Your task to perform on an android device: Empty the shopping cart on target. Image 0: 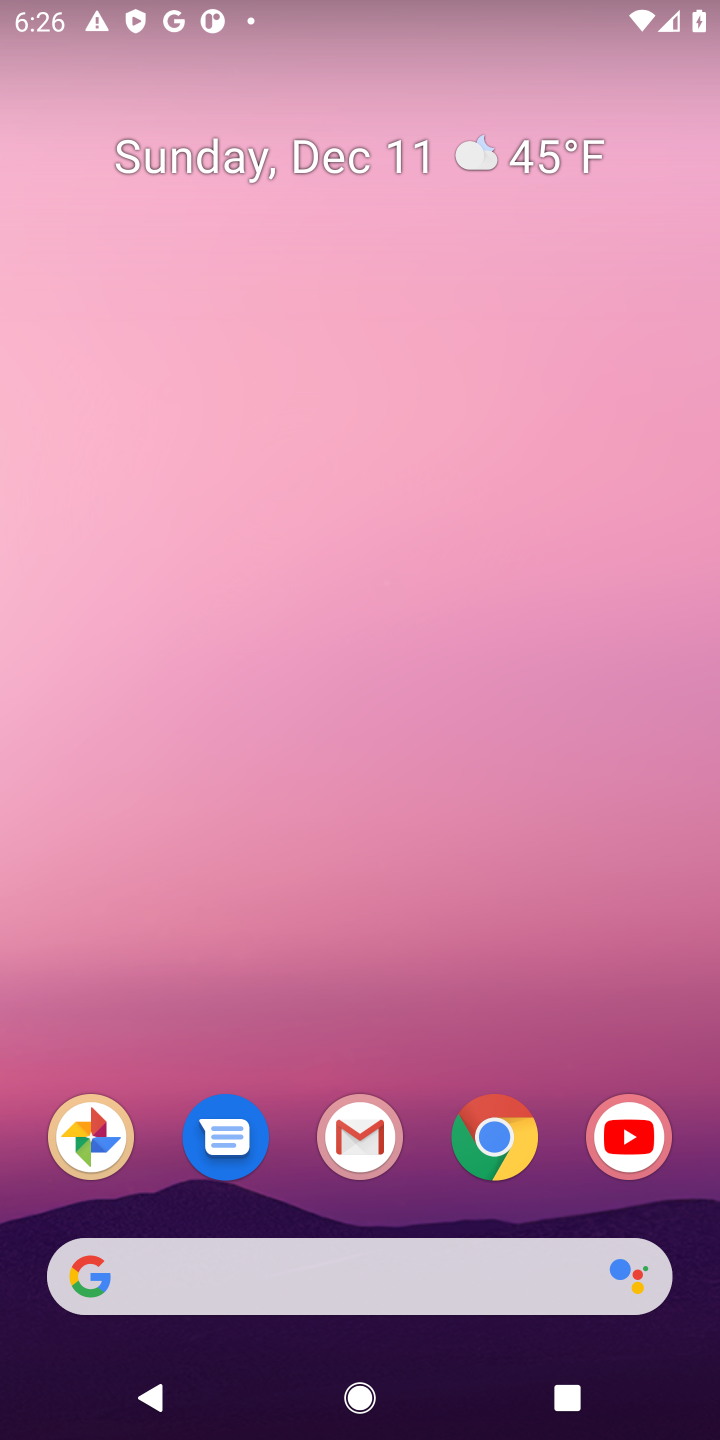
Step 0: click (479, 1117)
Your task to perform on an android device: Empty the shopping cart on target. Image 1: 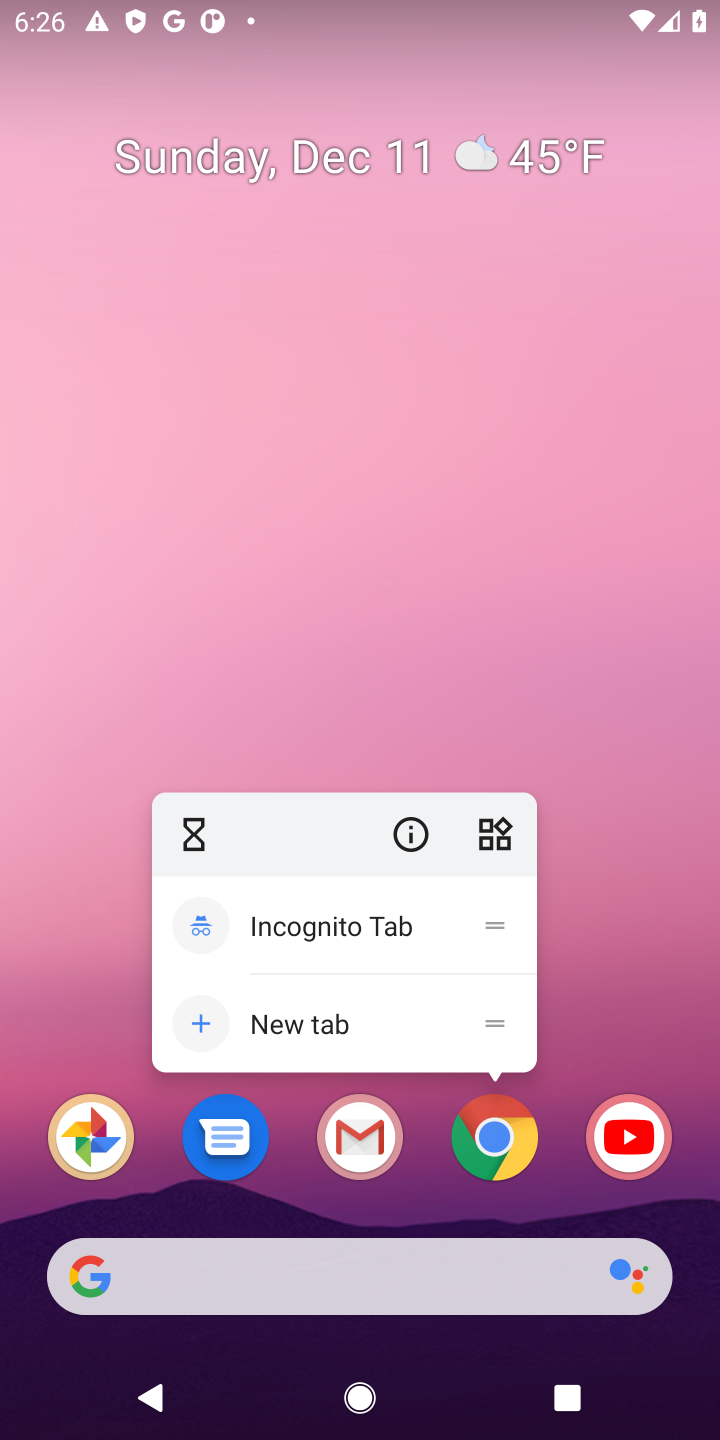
Step 1: click (490, 1145)
Your task to perform on an android device: Empty the shopping cart on target. Image 2: 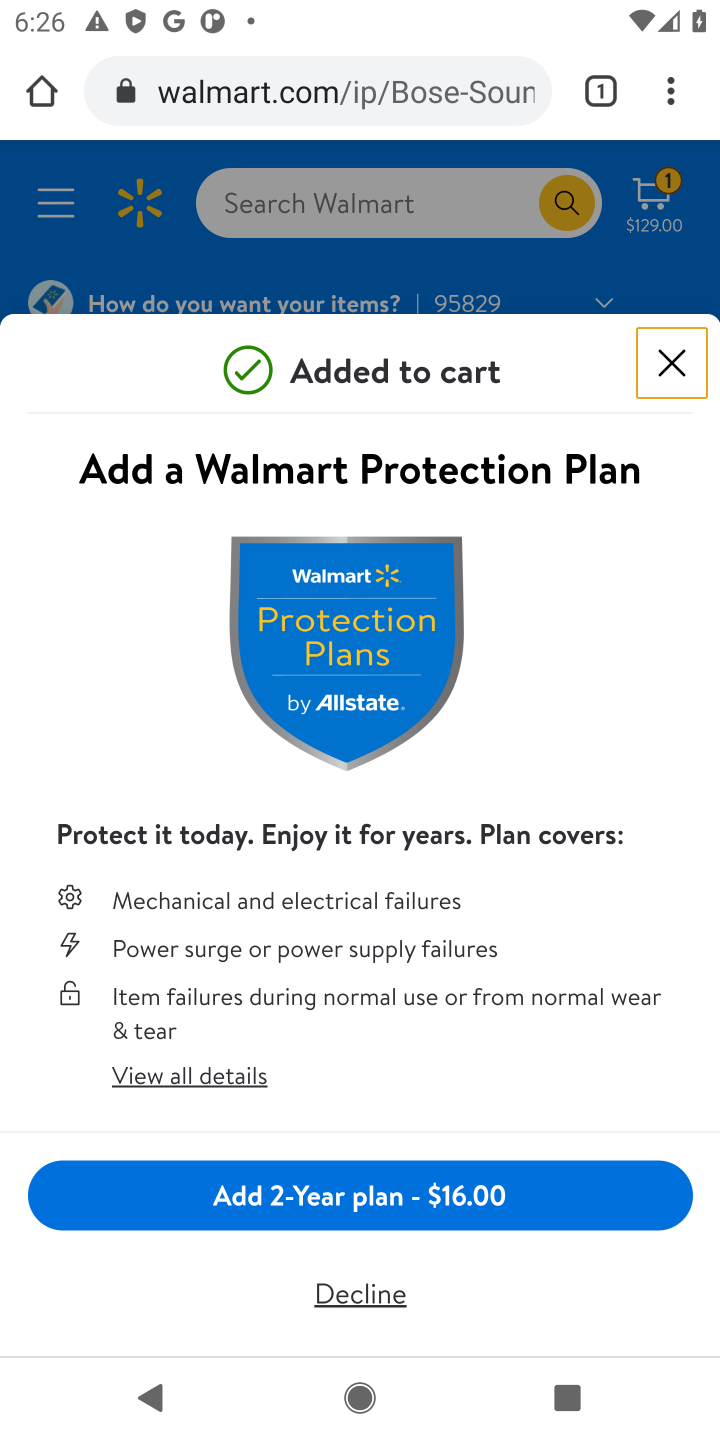
Step 2: click (229, 79)
Your task to perform on an android device: Empty the shopping cart on target. Image 3: 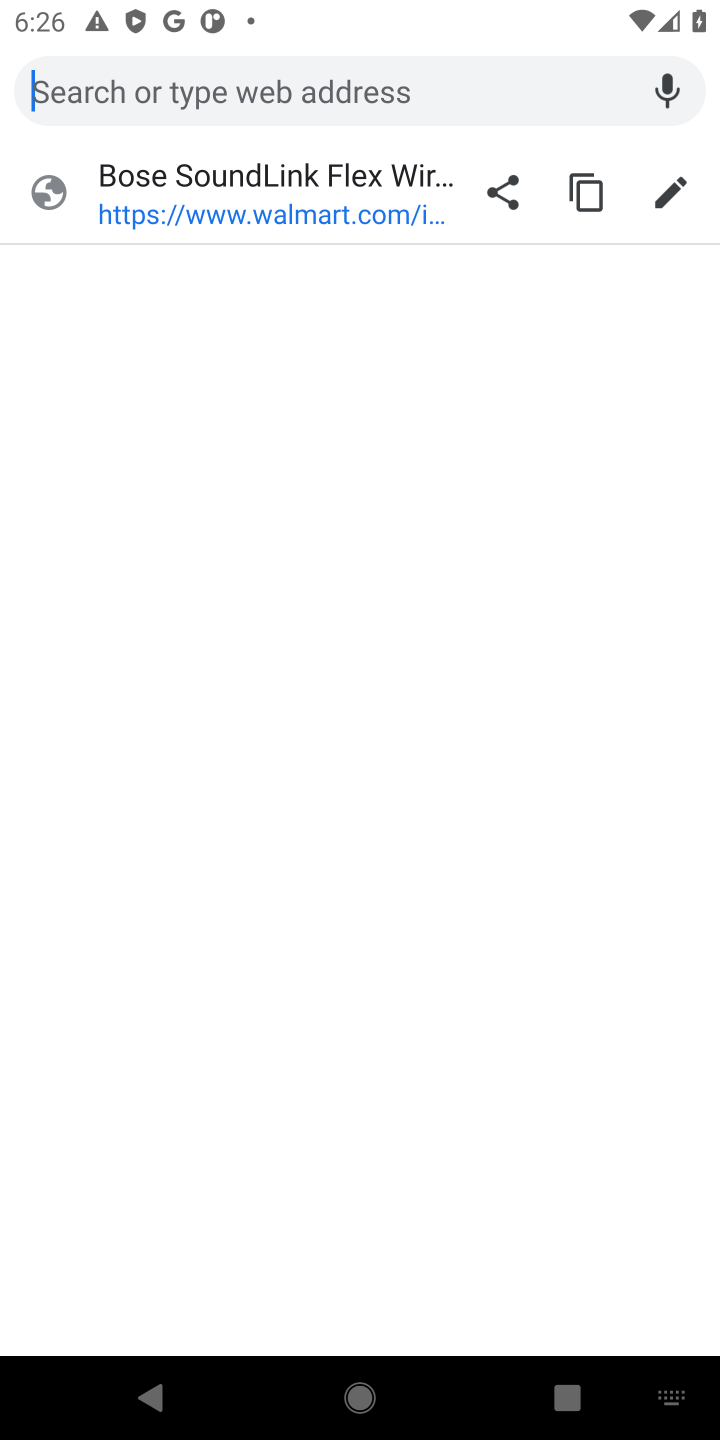
Step 3: type "target"
Your task to perform on an android device: Empty the shopping cart on target. Image 4: 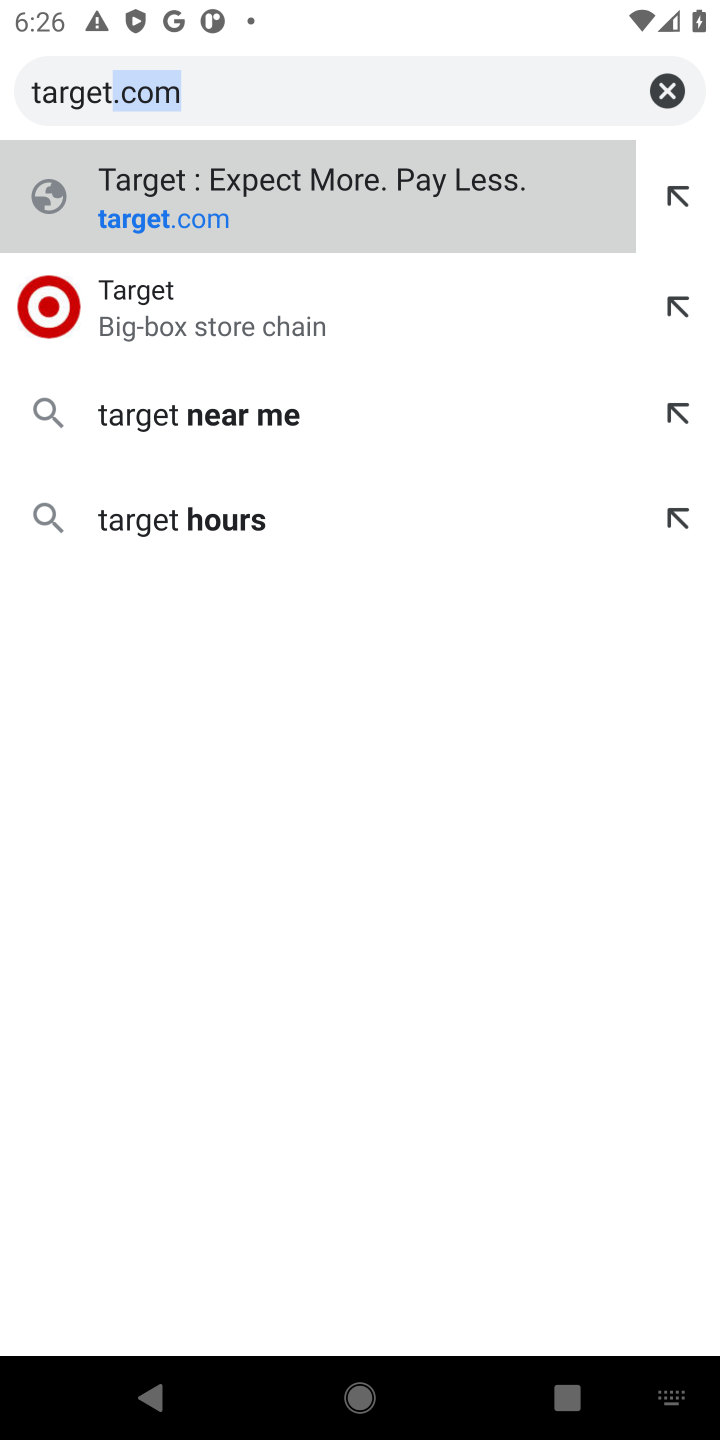
Step 4: click (153, 206)
Your task to perform on an android device: Empty the shopping cart on target. Image 5: 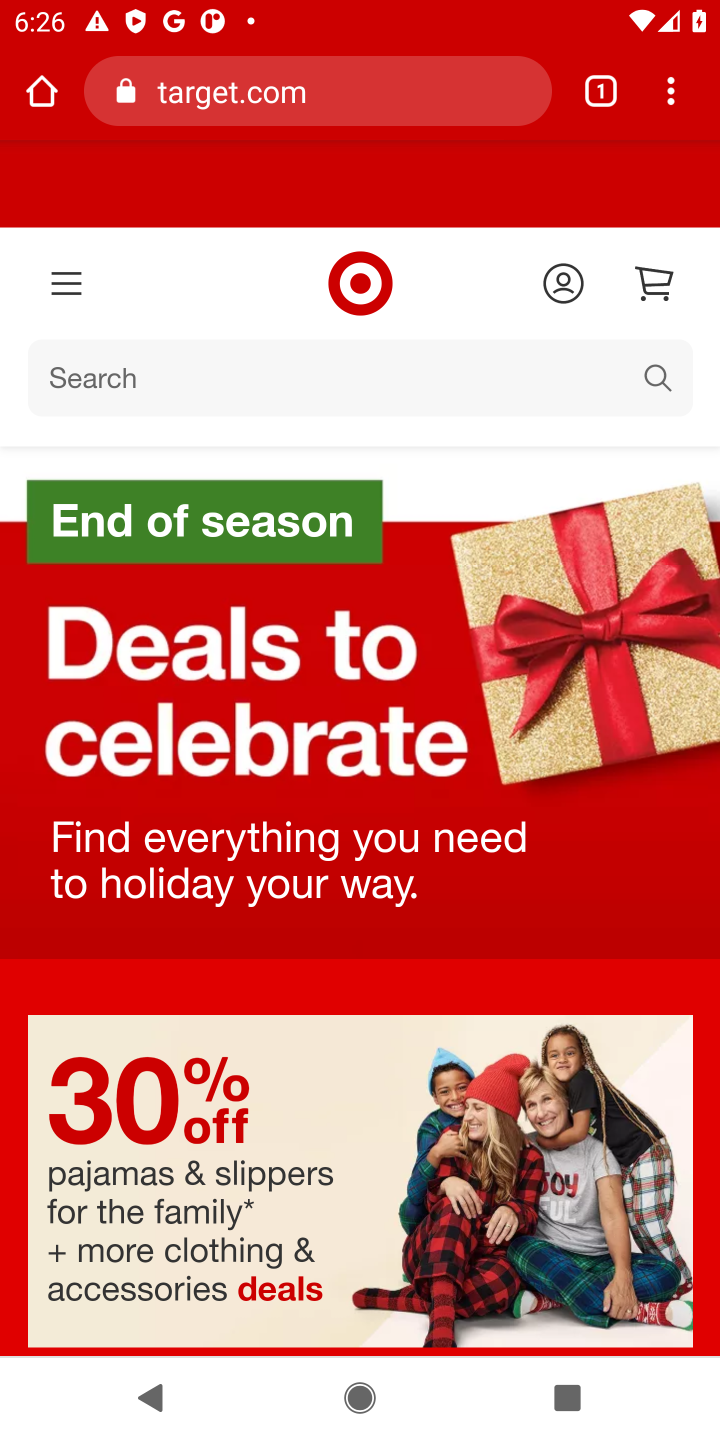
Step 5: click (661, 272)
Your task to perform on an android device: Empty the shopping cart on target. Image 6: 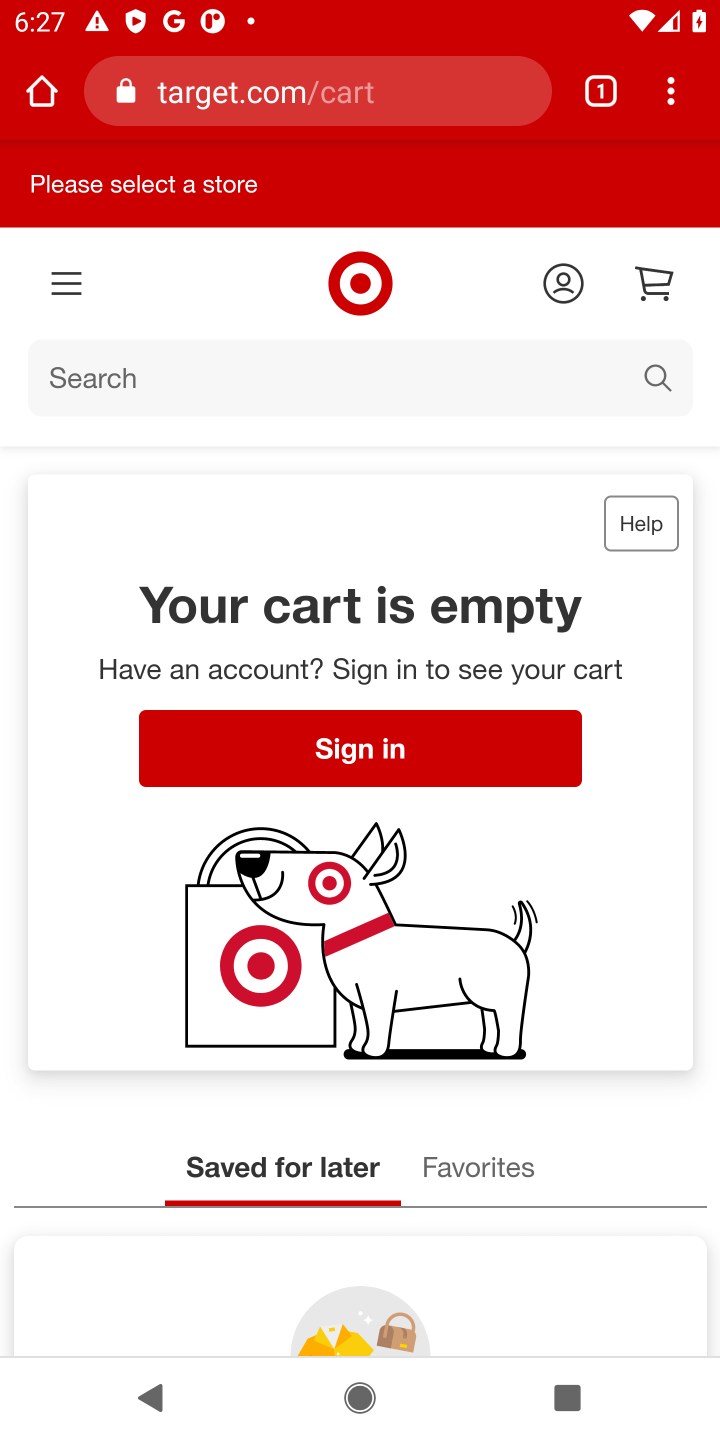
Step 6: task complete